Your task to perform on an android device: star an email in the gmail app Image 0: 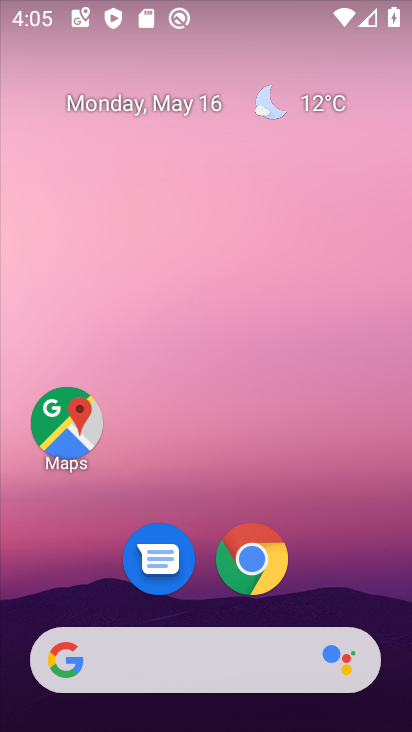
Step 0: drag from (364, 590) to (277, 68)
Your task to perform on an android device: star an email in the gmail app Image 1: 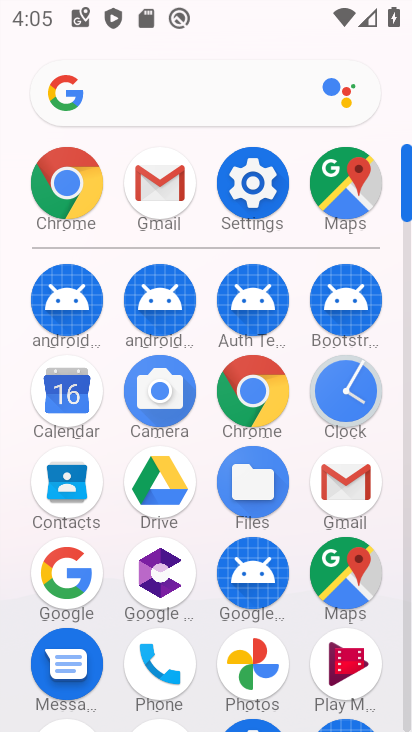
Step 1: click (331, 477)
Your task to perform on an android device: star an email in the gmail app Image 2: 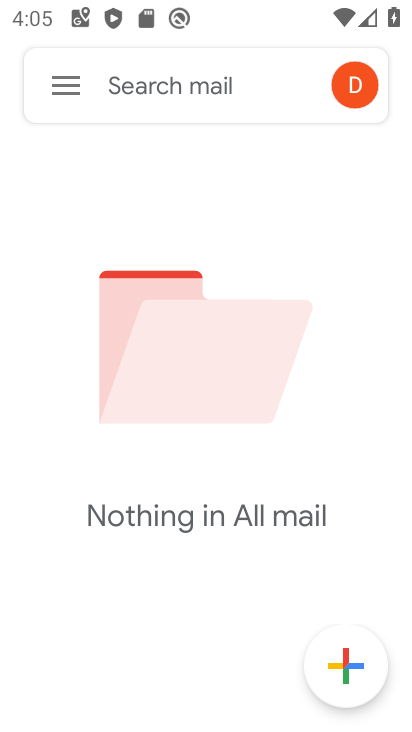
Step 2: click (51, 76)
Your task to perform on an android device: star an email in the gmail app Image 3: 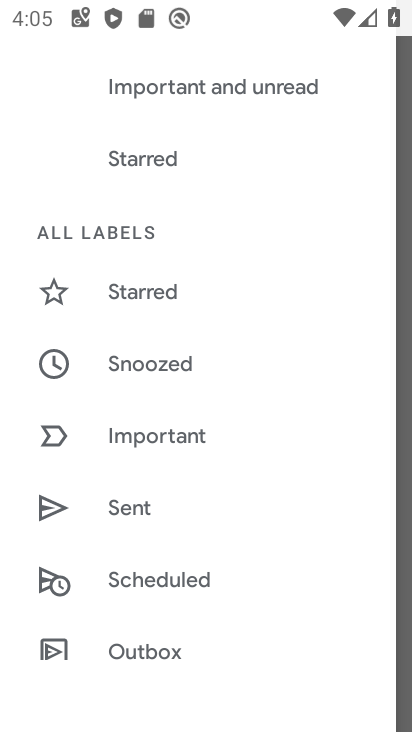
Step 3: click (97, 271)
Your task to perform on an android device: star an email in the gmail app Image 4: 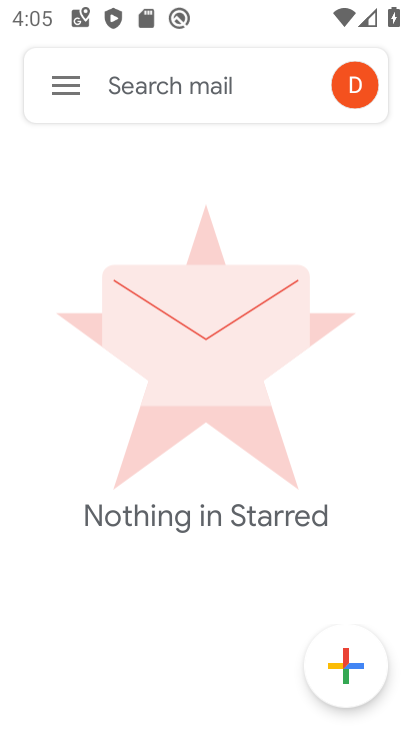
Step 4: task complete